Your task to perform on an android device: What's the news in Peru? Image 0: 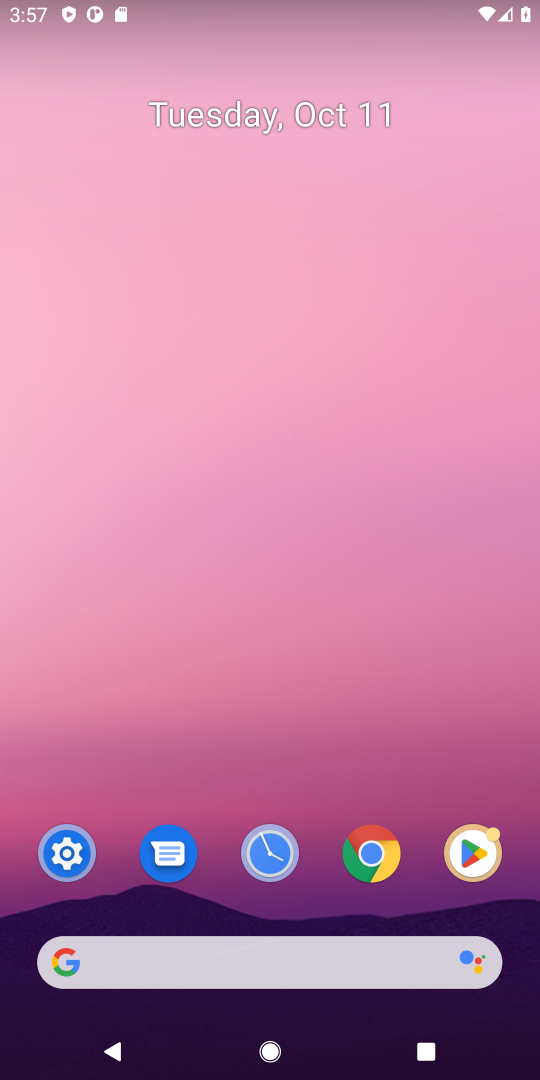
Step 0: click (365, 855)
Your task to perform on an android device: What's the news in Peru? Image 1: 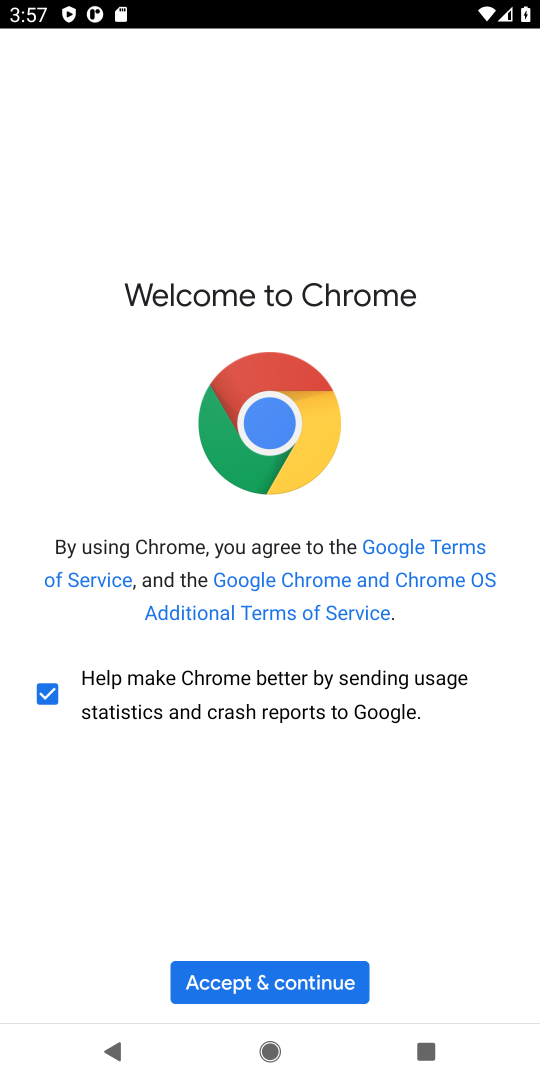
Step 1: click (264, 981)
Your task to perform on an android device: What's the news in Peru? Image 2: 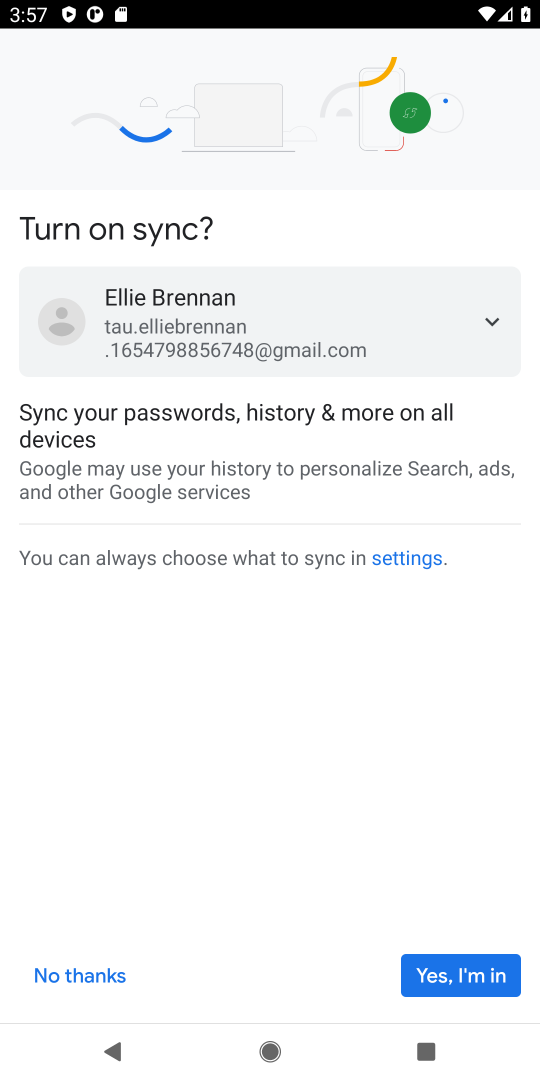
Step 2: click (93, 974)
Your task to perform on an android device: What's the news in Peru? Image 3: 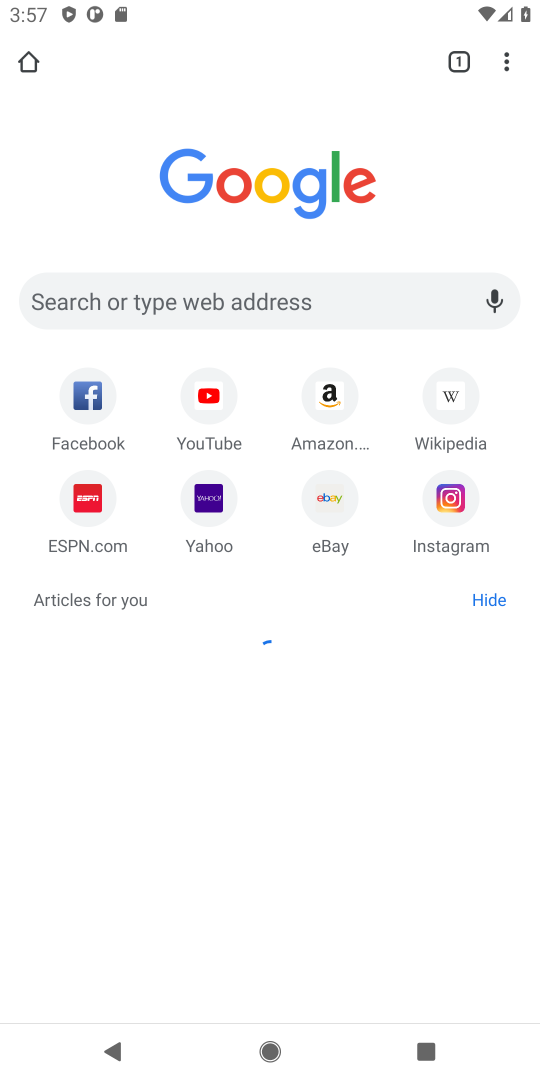
Step 3: click (213, 284)
Your task to perform on an android device: What's the news in Peru? Image 4: 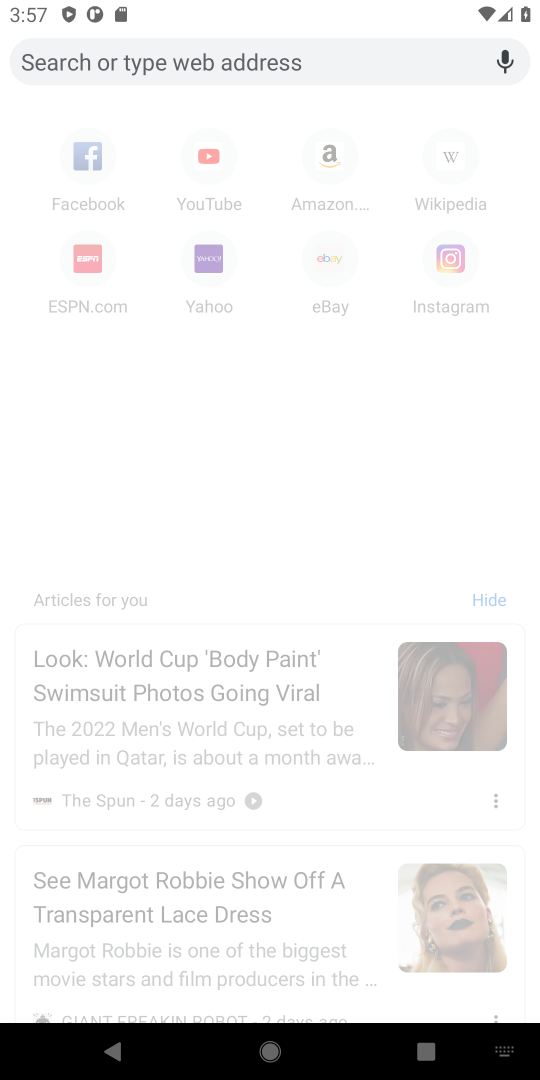
Step 4: type "news in peru"
Your task to perform on an android device: What's the news in Peru? Image 5: 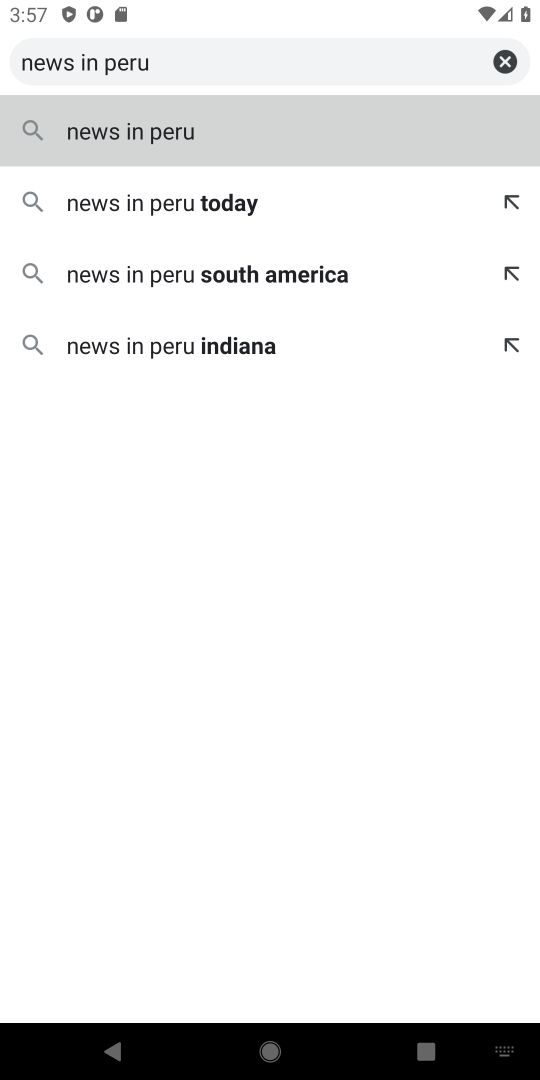
Step 5: click (140, 127)
Your task to perform on an android device: What's the news in Peru? Image 6: 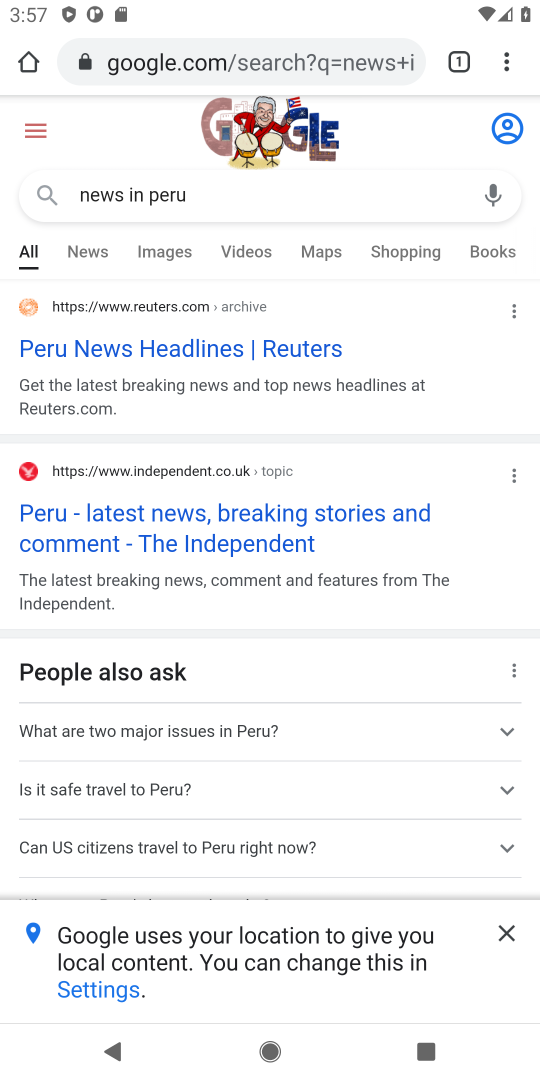
Step 6: click (55, 340)
Your task to perform on an android device: What's the news in Peru? Image 7: 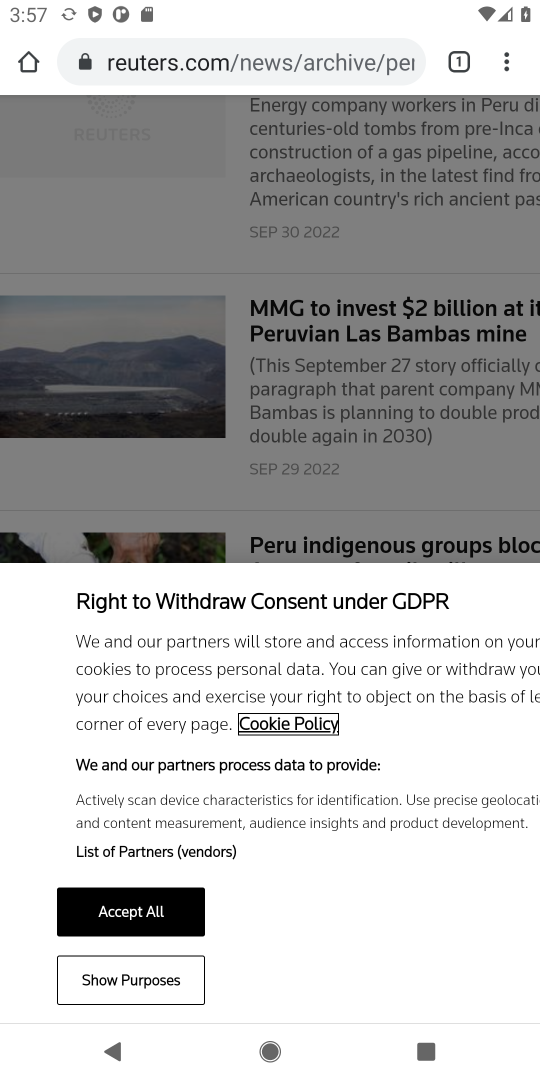
Step 7: click (122, 915)
Your task to perform on an android device: What's the news in Peru? Image 8: 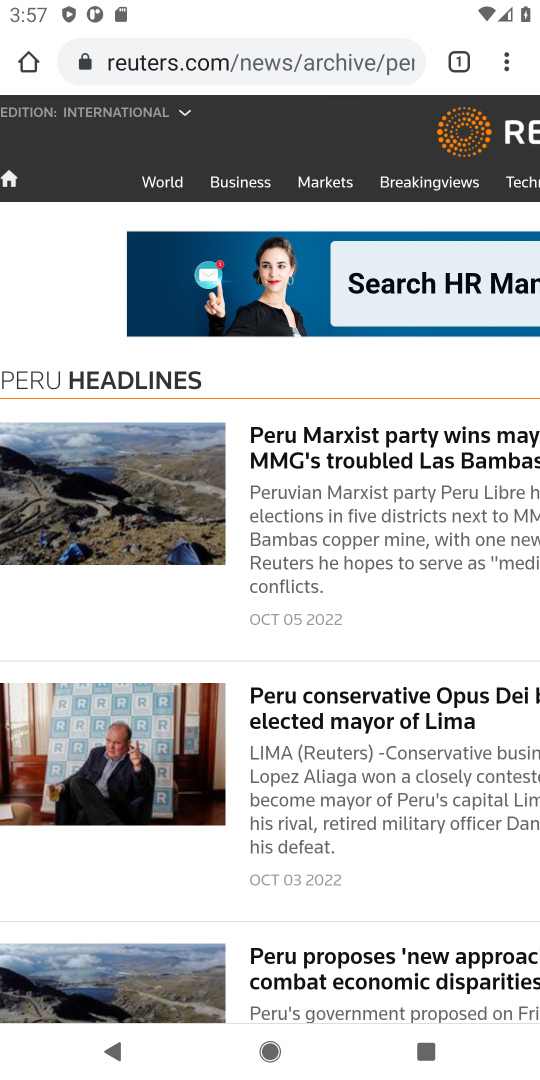
Step 8: click (337, 433)
Your task to perform on an android device: What's the news in Peru? Image 9: 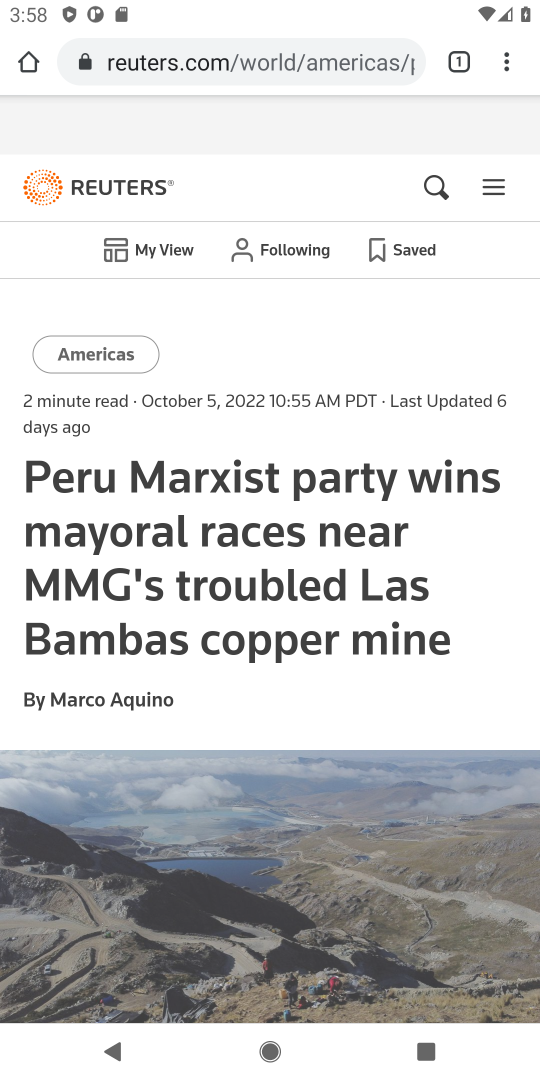
Step 9: task complete